Your task to perform on an android device: turn on airplane mode Image 0: 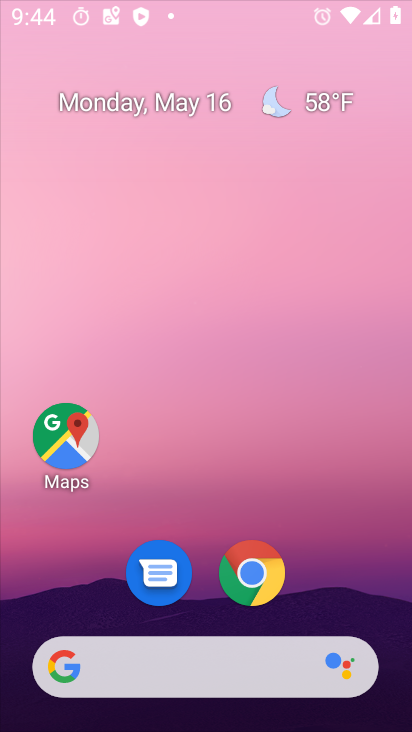
Step 0: drag from (293, 640) to (102, 22)
Your task to perform on an android device: turn on airplane mode Image 1: 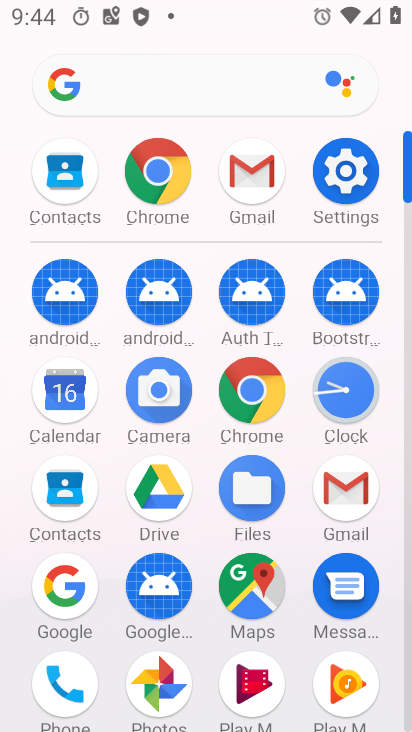
Step 1: click (353, 169)
Your task to perform on an android device: turn on airplane mode Image 2: 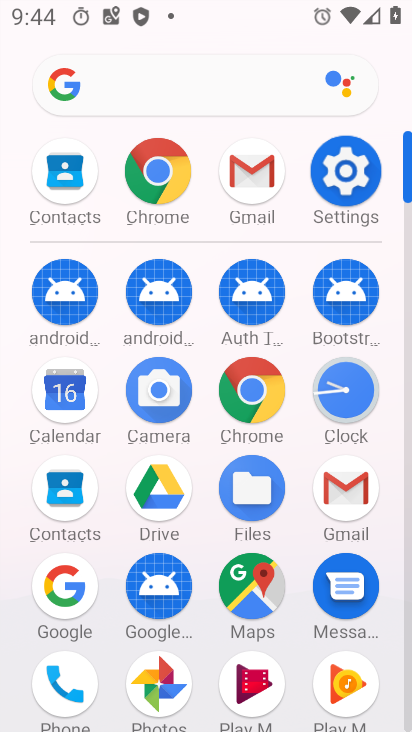
Step 2: click (353, 170)
Your task to perform on an android device: turn on airplane mode Image 3: 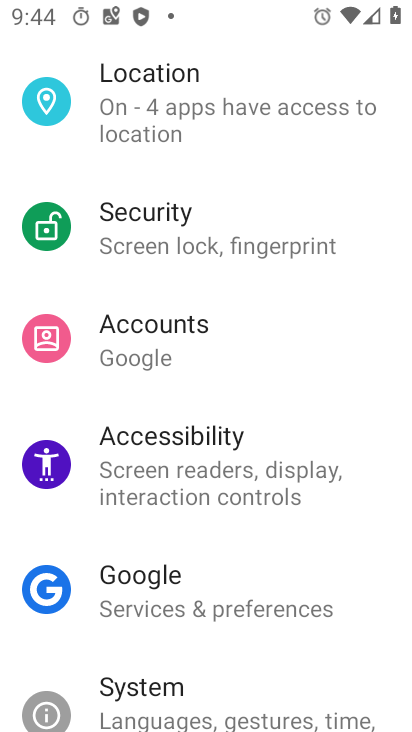
Step 3: click (353, 172)
Your task to perform on an android device: turn on airplane mode Image 4: 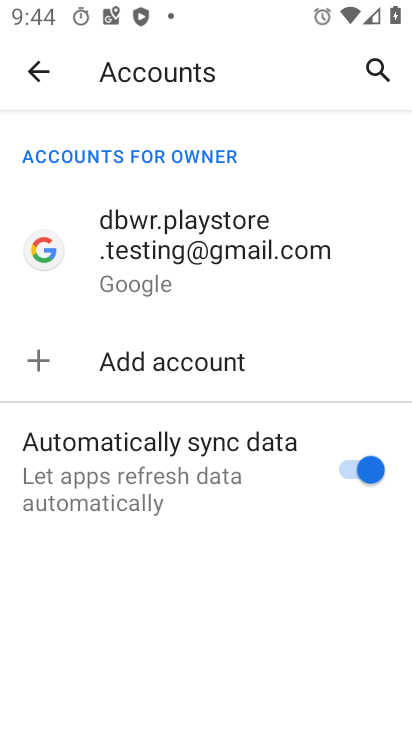
Step 4: click (34, 69)
Your task to perform on an android device: turn on airplane mode Image 5: 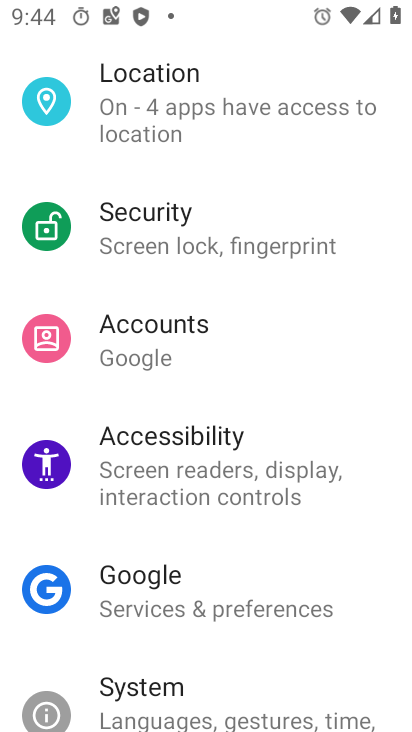
Step 5: drag from (168, 135) to (237, 587)
Your task to perform on an android device: turn on airplane mode Image 6: 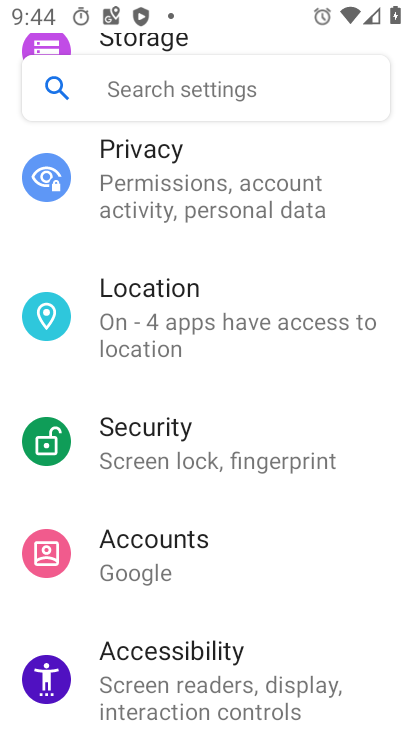
Step 6: drag from (168, 112) to (231, 591)
Your task to perform on an android device: turn on airplane mode Image 7: 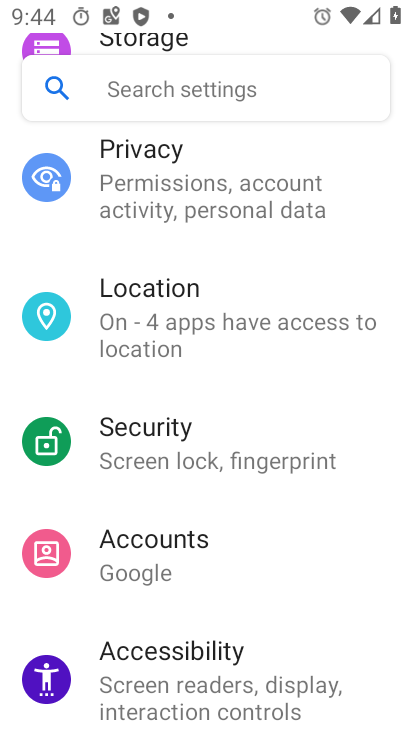
Step 7: drag from (190, 157) to (200, 612)
Your task to perform on an android device: turn on airplane mode Image 8: 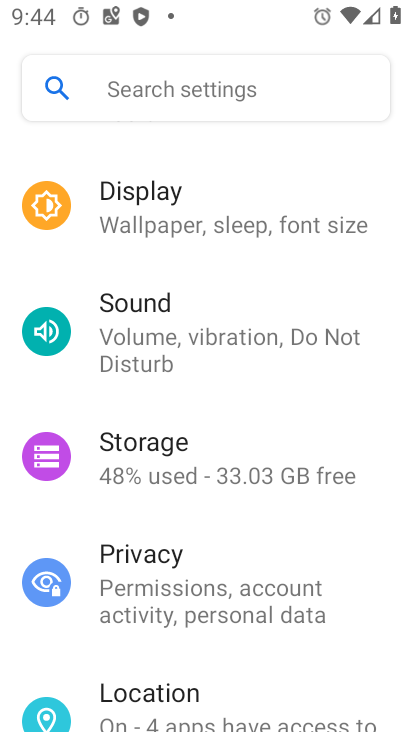
Step 8: drag from (172, 226) to (269, 709)
Your task to perform on an android device: turn on airplane mode Image 9: 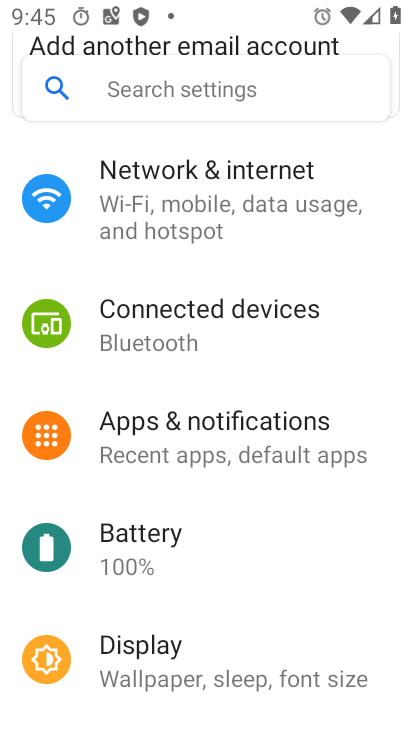
Step 9: click (171, 223)
Your task to perform on an android device: turn on airplane mode Image 10: 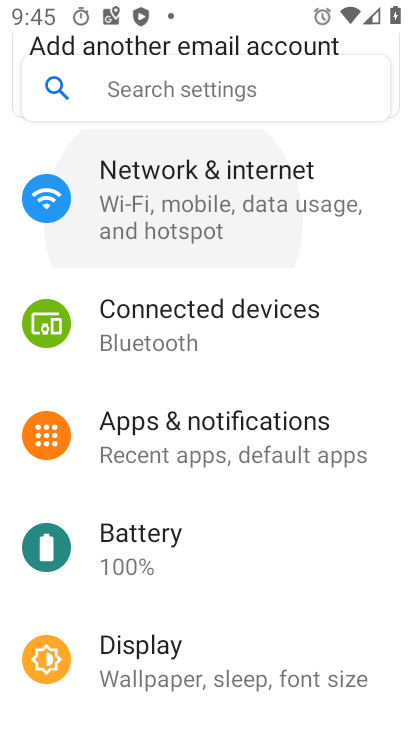
Step 10: click (171, 223)
Your task to perform on an android device: turn on airplane mode Image 11: 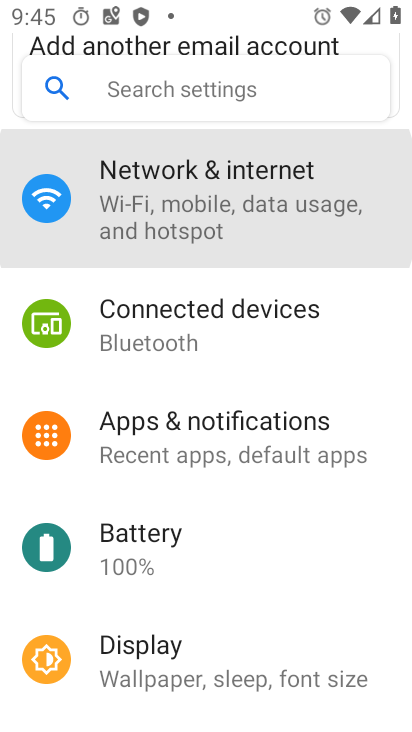
Step 11: click (171, 223)
Your task to perform on an android device: turn on airplane mode Image 12: 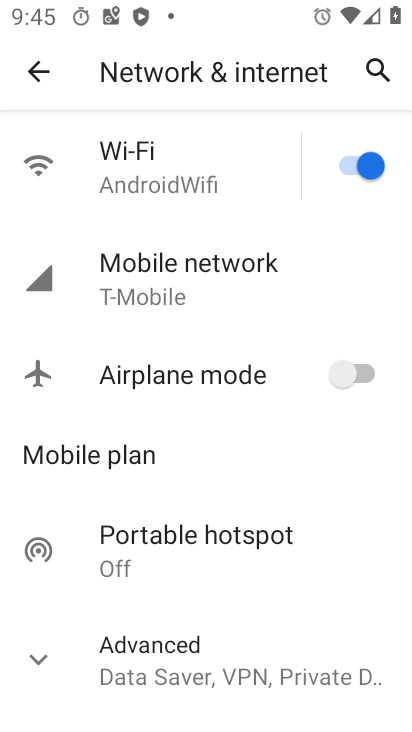
Step 12: click (344, 366)
Your task to perform on an android device: turn on airplane mode Image 13: 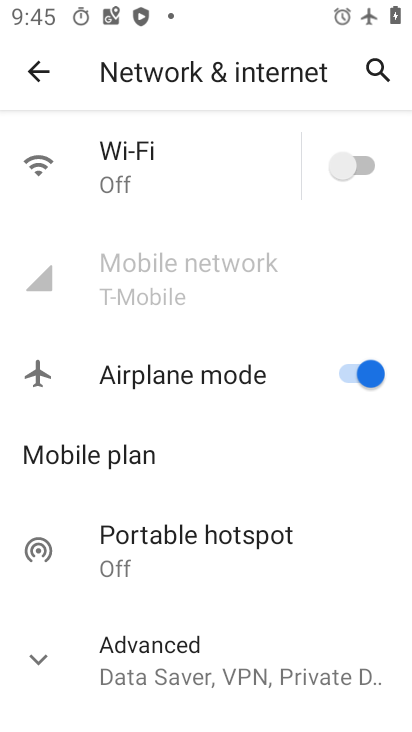
Step 13: task complete